Your task to perform on an android device: Open calendar and show me the first week of next month Image 0: 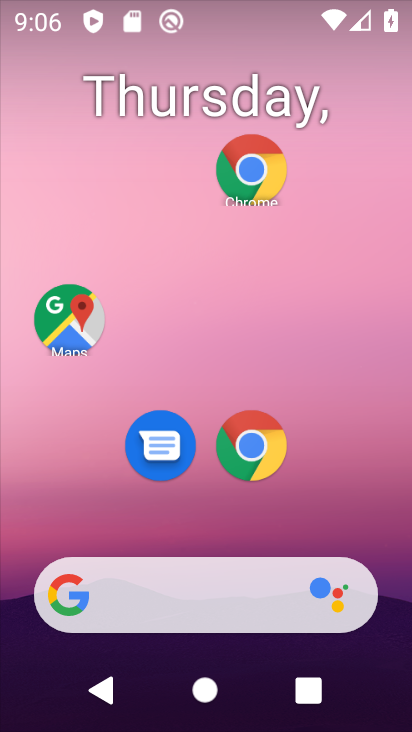
Step 0: drag from (192, 170) to (173, 112)
Your task to perform on an android device: Open calendar and show me the first week of next month Image 1: 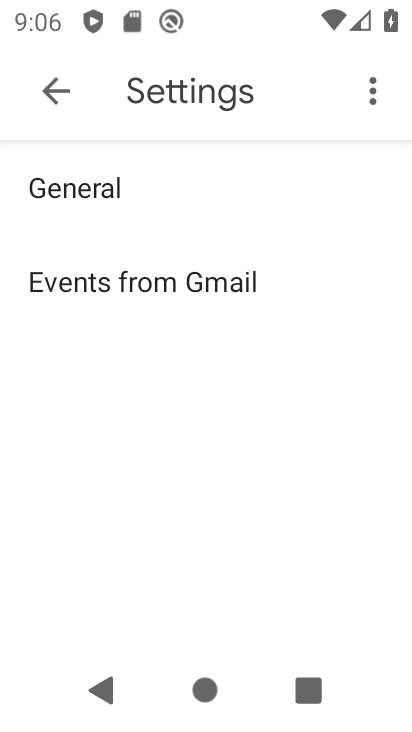
Step 1: press home button
Your task to perform on an android device: Open calendar and show me the first week of next month Image 2: 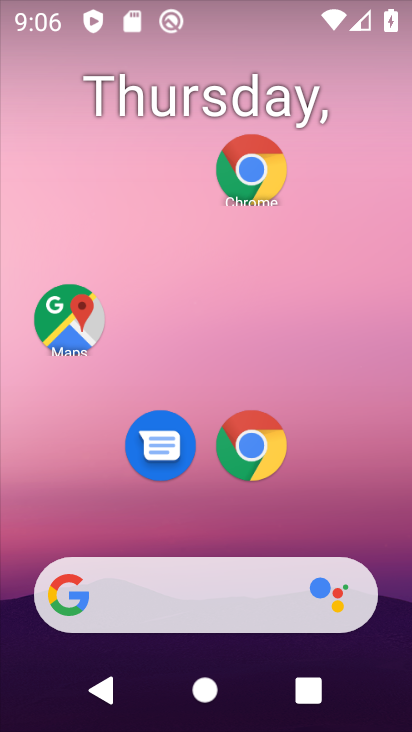
Step 2: drag from (185, 530) to (117, 121)
Your task to perform on an android device: Open calendar and show me the first week of next month Image 3: 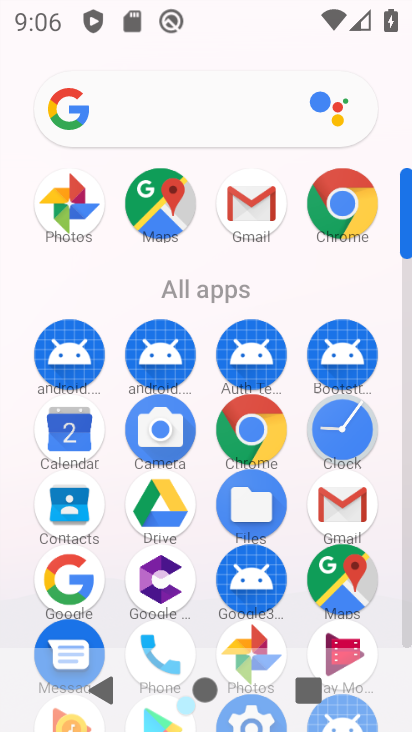
Step 3: click (75, 452)
Your task to perform on an android device: Open calendar and show me the first week of next month Image 4: 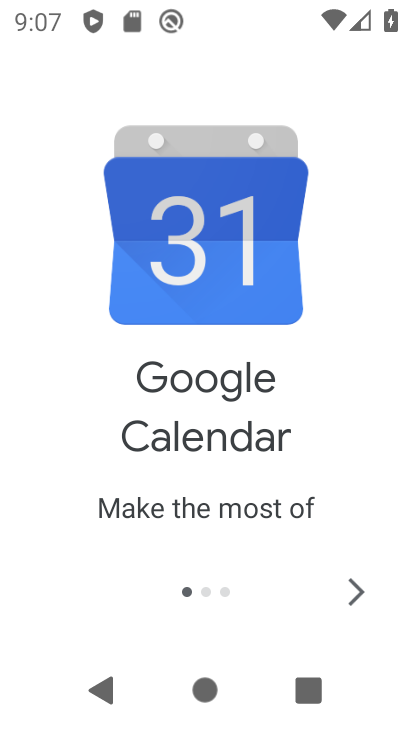
Step 4: click (360, 587)
Your task to perform on an android device: Open calendar and show me the first week of next month Image 5: 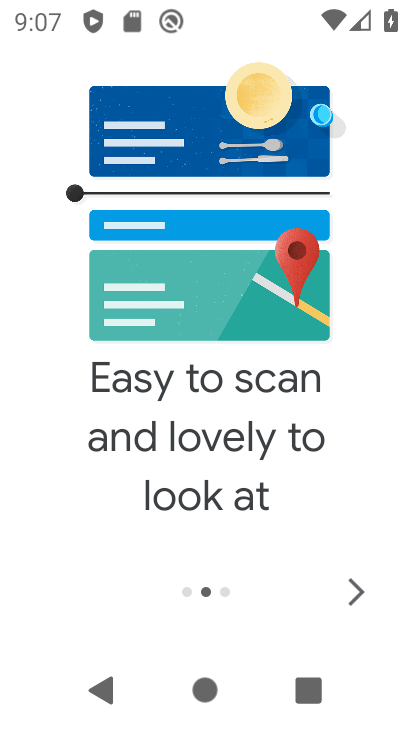
Step 5: click (360, 587)
Your task to perform on an android device: Open calendar and show me the first week of next month Image 6: 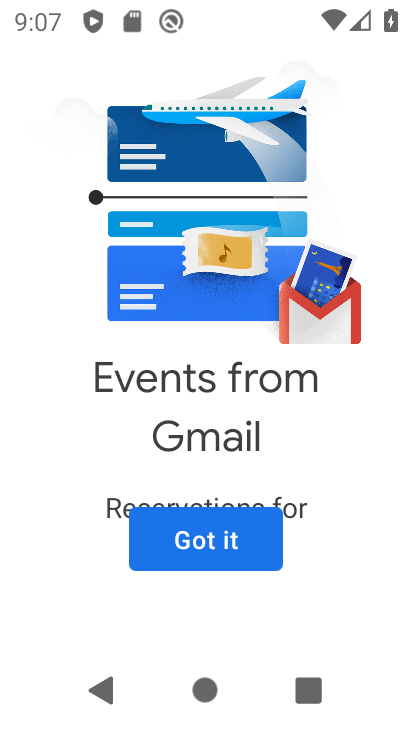
Step 6: click (239, 530)
Your task to perform on an android device: Open calendar and show me the first week of next month Image 7: 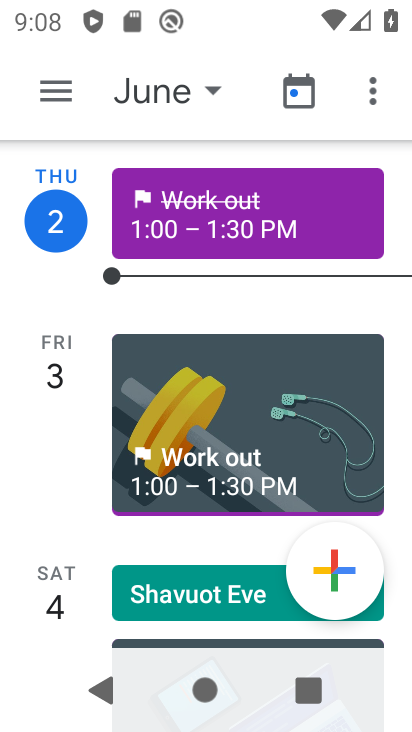
Step 7: click (56, 92)
Your task to perform on an android device: Open calendar and show me the first week of next month Image 8: 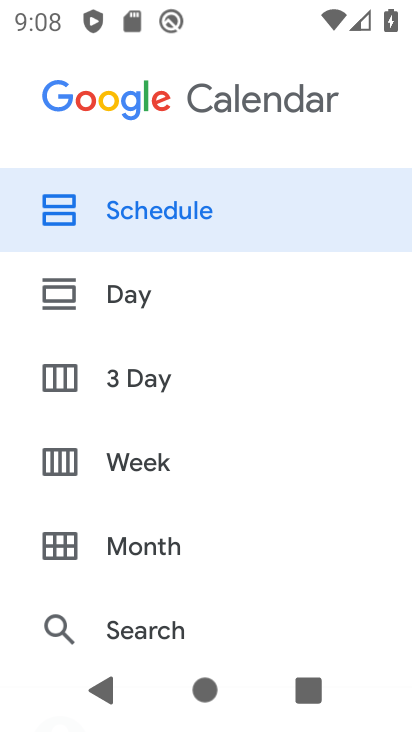
Step 8: click (147, 461)
Your task to perform on an android device: Open calendar and show me the first week of next month Image 9: 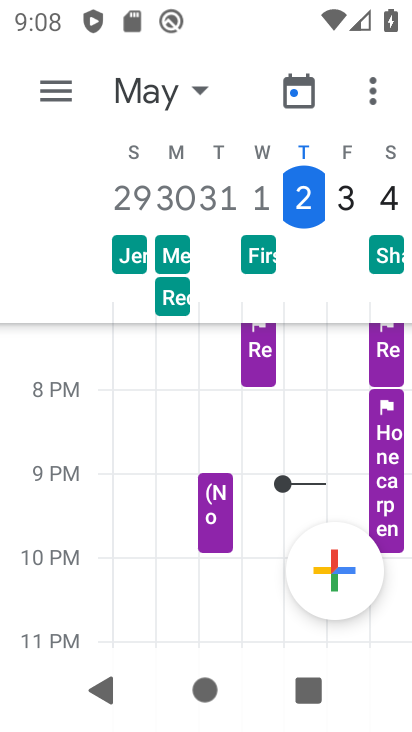
Step 9: task complete